Your task to perform on an android device: Open sound settings Image 0: 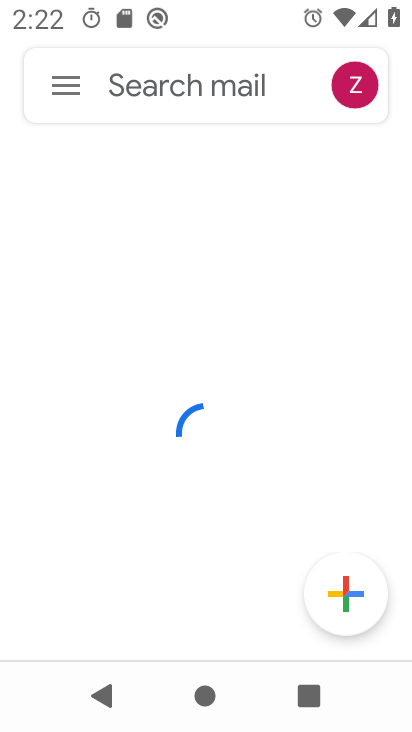
Step 0: press home button
Your task to perform on an android device: Open sound settings Image 1: 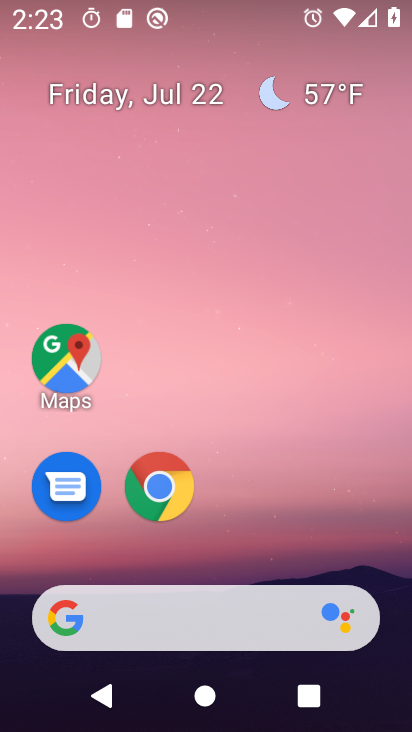
Step 1: drag from (366, 544) to (365, 119)
Your task to perform on an android device: Open sound settings Image 2: 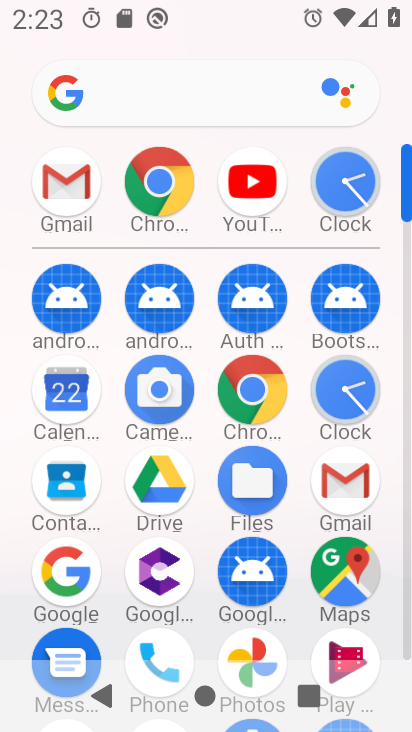
Step 2: drag from (405, 428) to (406, 330)
Your task to perform on an android device: Open sound settings Image 3: 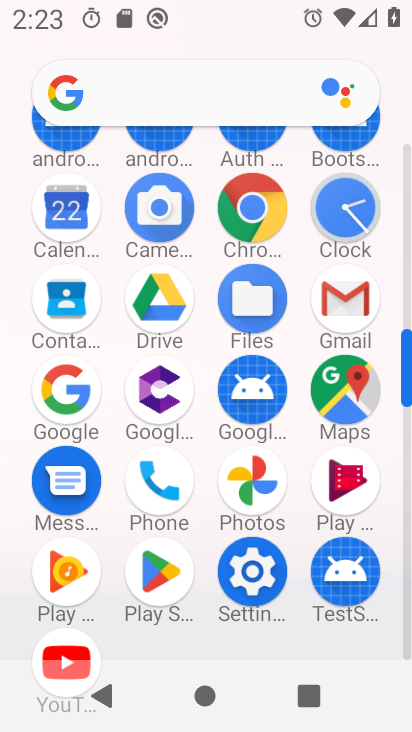
Step 3: click (254, 565)
Your task to perform on an android device: Open sound settings Image 4: 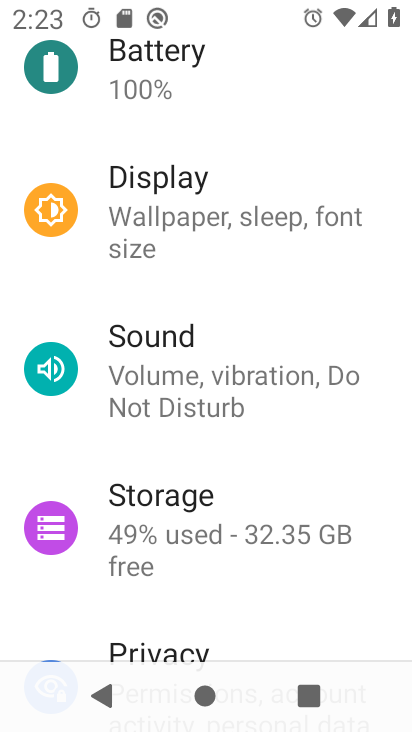
Step 4: drag from (386, 233) to (382, 332)
Your task to perform on an android device: Open sound settings Image 5: 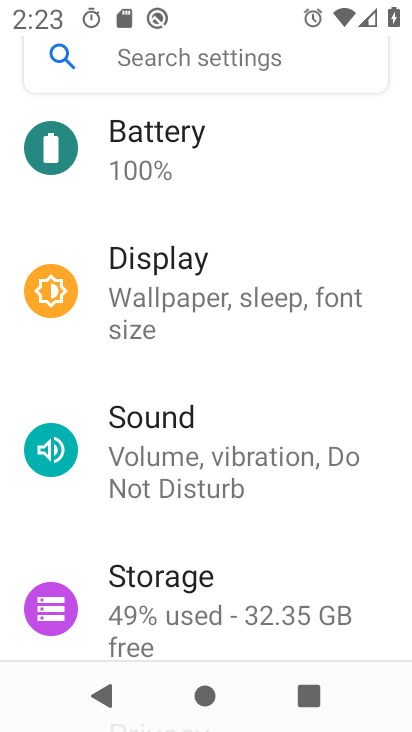
Step 5: drag from (376, 208) to (373, 351)
Your task to perform on an android device: Open sound settings Image 6: 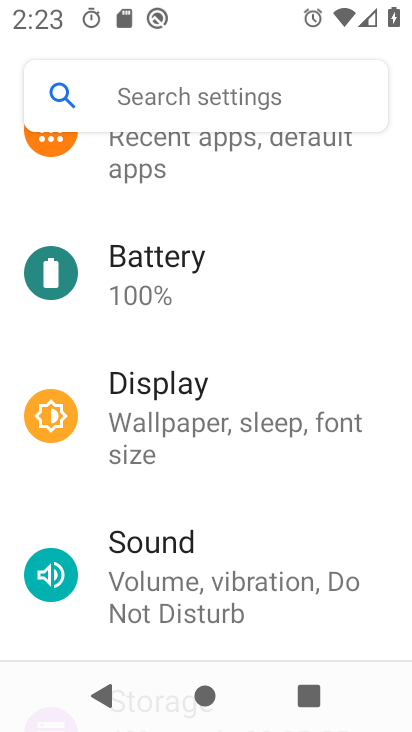
Step 6: drag from (382, 190) to (383, 333)
Your task to perform on an android device: Open sound settings Image 7: 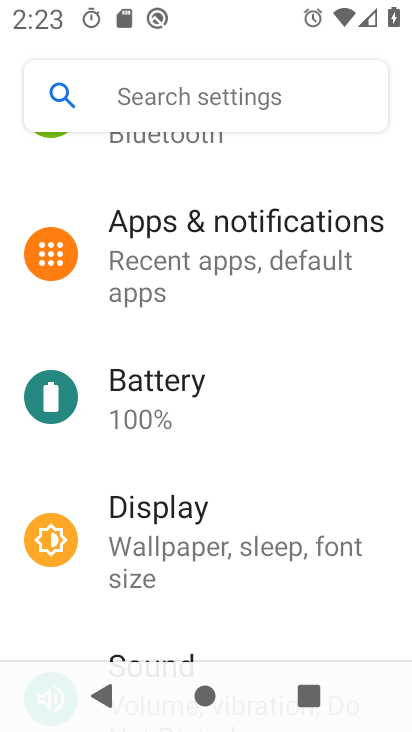
Step 7: drag from (388, 165) to (378, 360)
Your task to perform on an android device: Open sound settings Image 8: 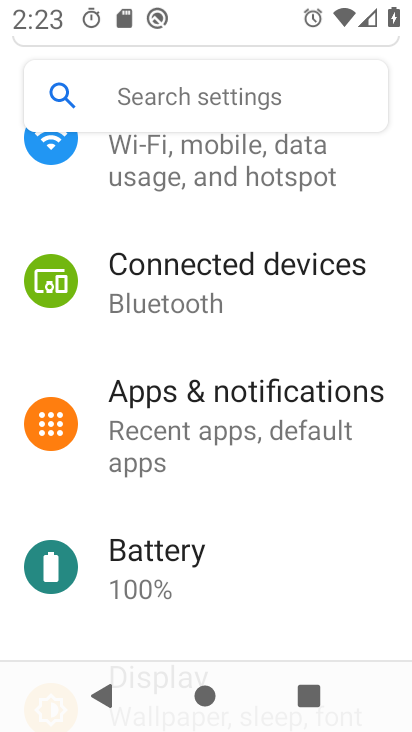
Step 8: drag from (370, 169) to (376, 313)
Your task to perform on an android device: Open sound settings Image 9: 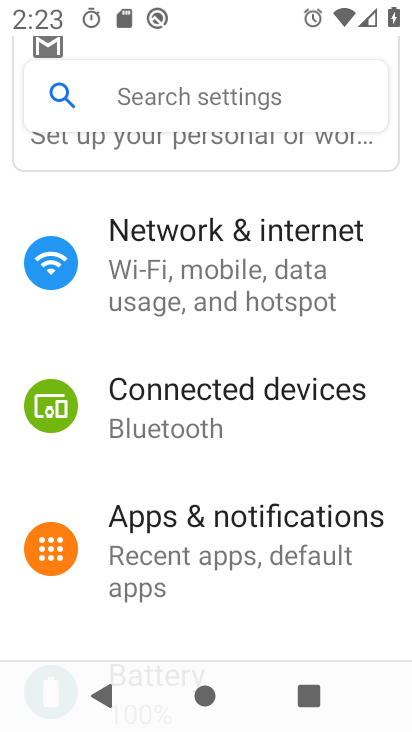
Step 9: drag from (385, 353) to (391, 260)
Your task to perform on an android device: Open sound settings Image 10: 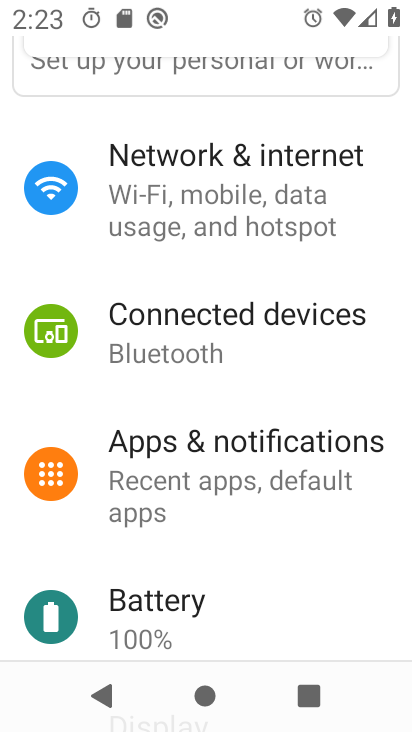
Step 10: drag from (362, 401) to (370, 324)
Your task to perform on an android device: Open sound settings Image 11: 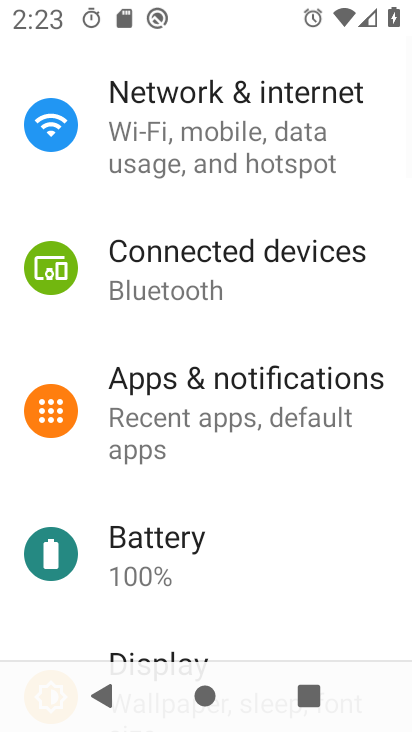
Step 11: drag from (370, 431) to (371, 343)
Your task to perform on an android device: Open sound settings Image 12: 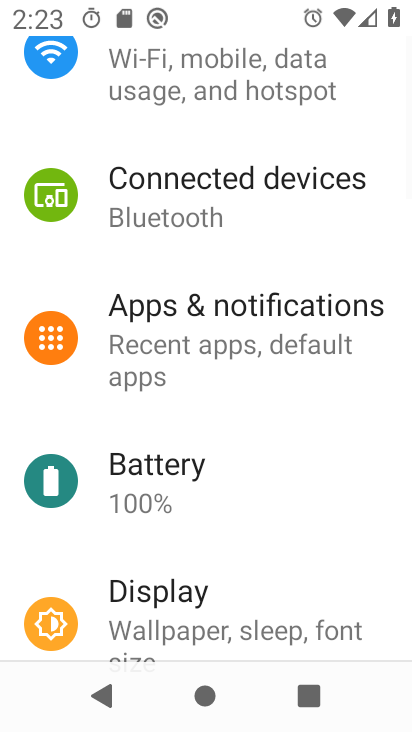
Step 12: drag from (365, 451) to (366, 352)
Your task to perform on an android device: Open sound settings Image 13: 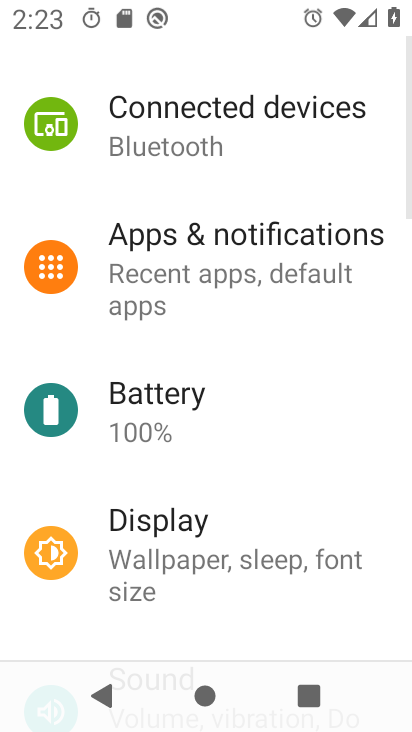
Step 13: drag from (352, 419) to (339, 335)
Your task to perform on an android device: Open sound settings Image 14: 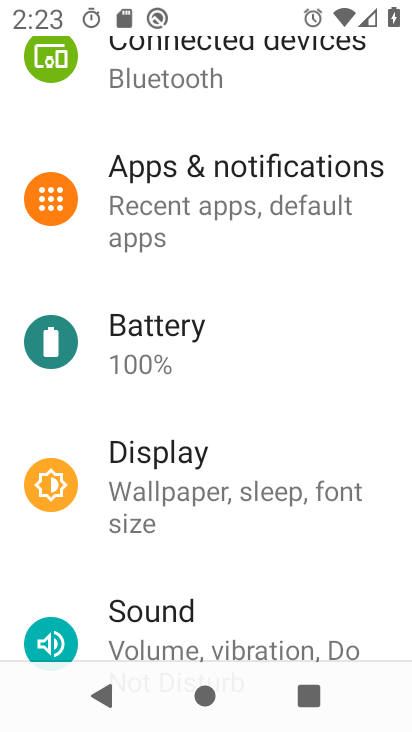
Step 14: drag from (325, 433) to (333, 308)
Your task to perform on an android device: Open sound settings Image 15: 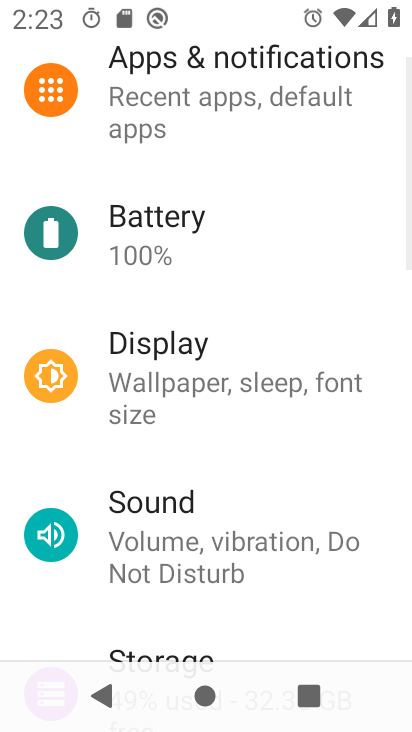
Step 15: drag from (326, 455) to (326, 351)
Your task to perform on an android device: Open sound settings Image 16: 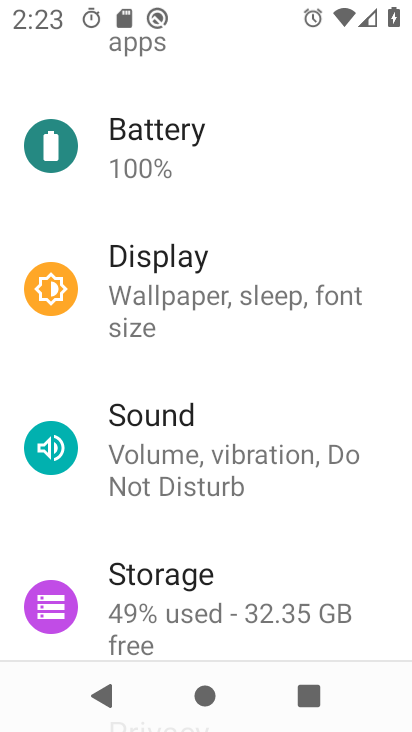
Step 16: click (323, 435)
Your task to perform on an android device: Open sound settings Image 17: 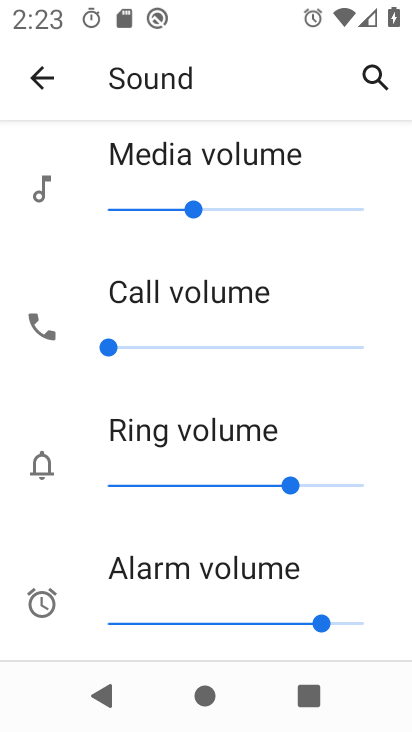
Step 17: task complete